Your task to perform on an android device: add a contact Image 0: 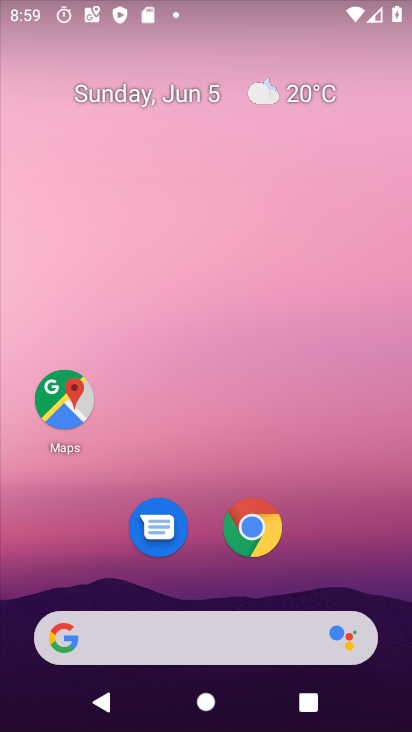
Step 0: drag from (350, 519) to (225, 2)
Your task to perform on an android device: add a contact Image 1: 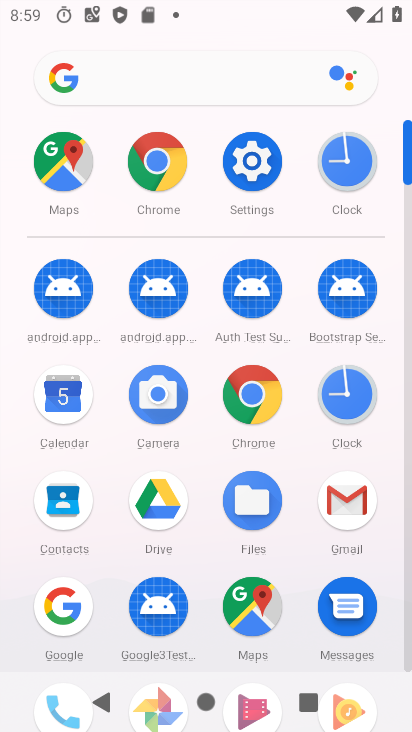
Step 1: drag from (398, 635) to (405, 353)
Your task to perform on an android device: add a contact Image 2: 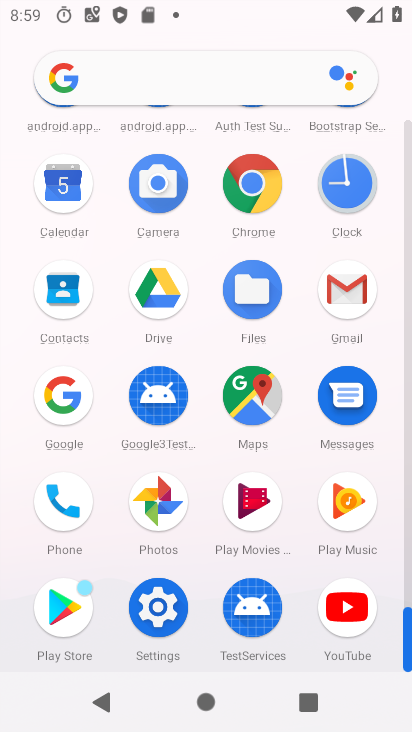
Step 2: click (88, 512)
Your task to perform on an android device: add a contact Image 3: 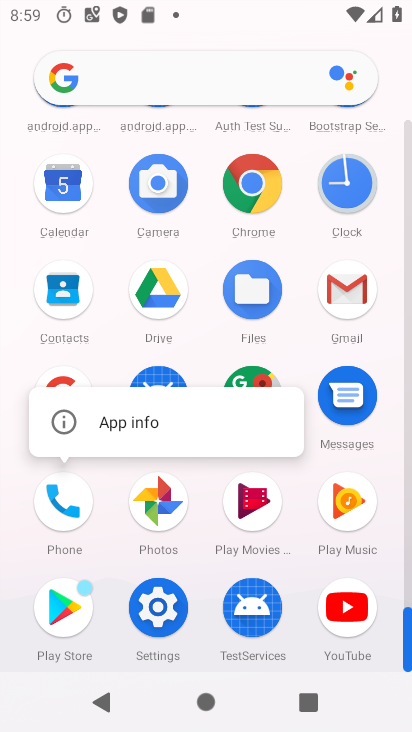
Step 3: click (87, 512)
Your task to perform on an android device: add a contact Image 4: 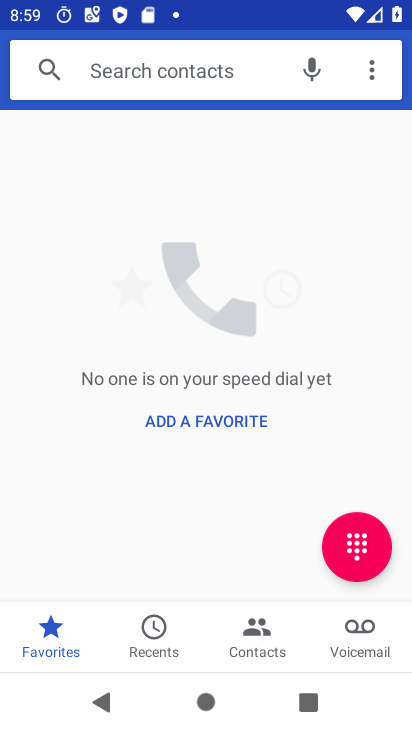
Step 4: click (260, 644)
Your task to perform on an android device: add a contact Image 5: 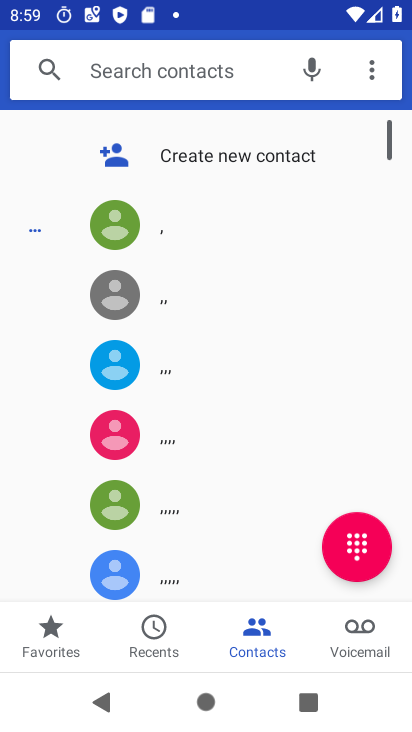
Step 5: click (259, 145)
Your task to perform on an android device: add a contact Image 6: 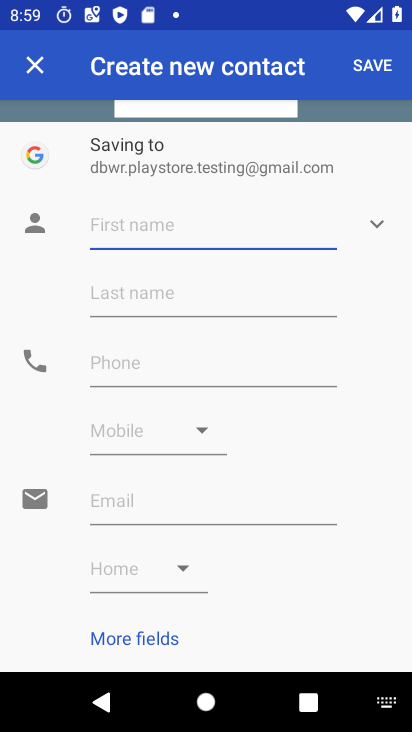
Step 6: type "yttt"
Your task to perform on an android device: add a contact Image 7: 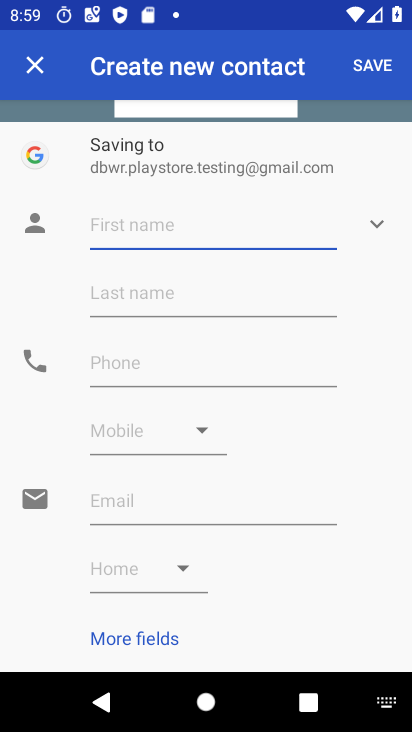
Step 7: click (145, 362)
Your task to perform on an android device: add a contact Image 8: 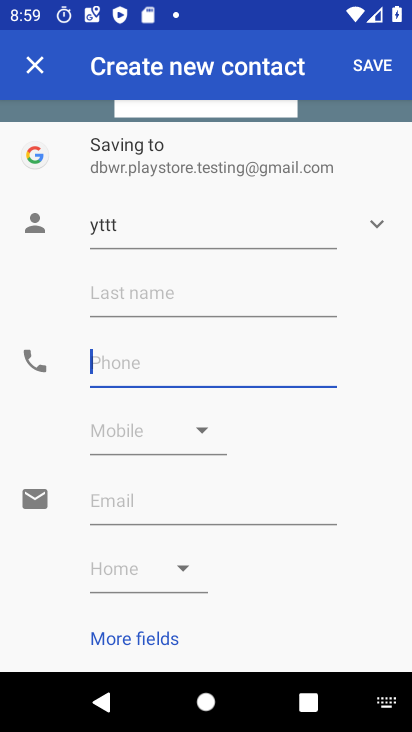
Step 8: type "567897678"
Your task to perform on an android device: add a contact Image 9: 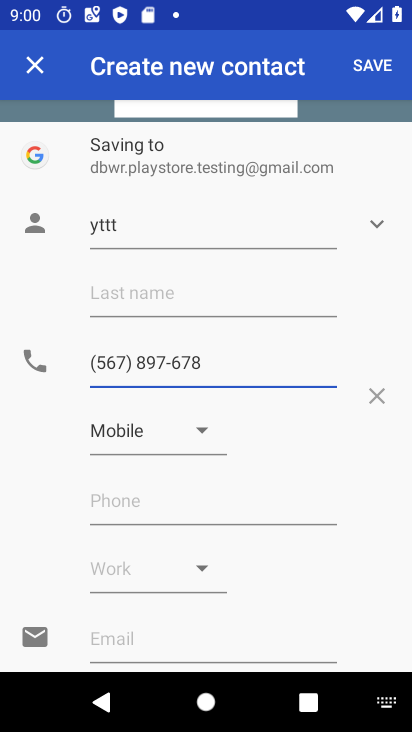
Step 9: click (388, 77)
Your task to perform on an android device: add a contact Image 10: 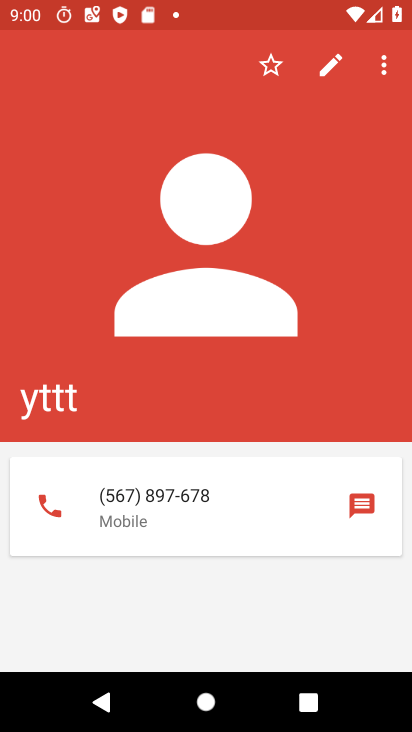
Step 10: task complete